Your task to perform on an android device: Open Wikipedia Image 0: 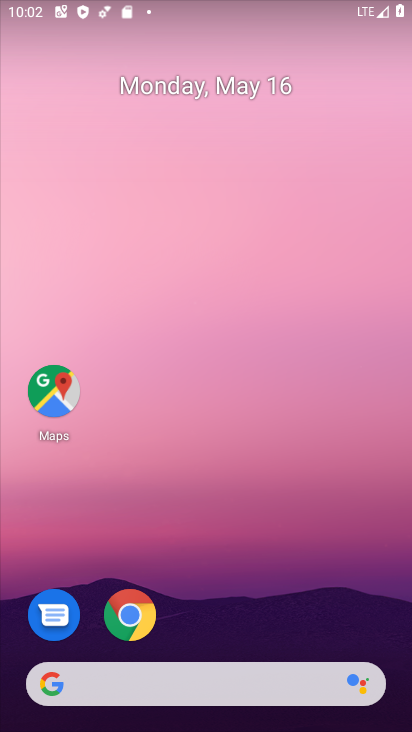
Step 0: drag from (166, 570) to (264, 5)
Your task to perform on an android device: Open Wikipedia Image 1: 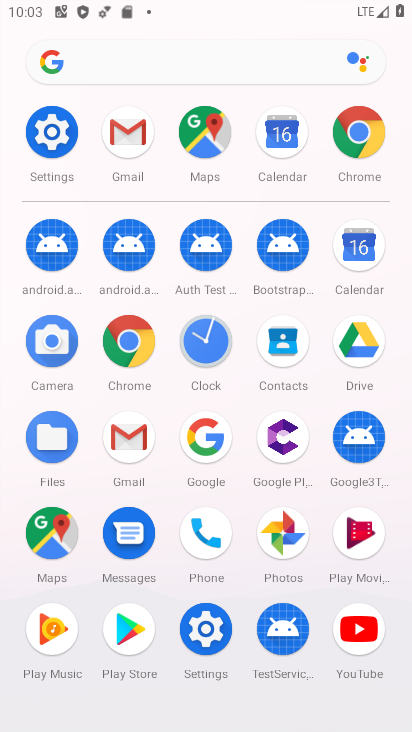
Step 1: click (356, 160)
Your task to perform on an android device: Open Wikipedia Image 2: 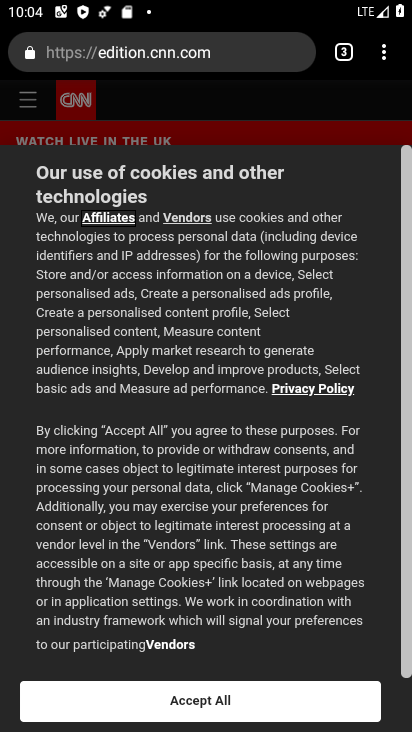
Step 2: click (219, 60)
Your task to perform on an android device: Open Wikipedia Image 3: 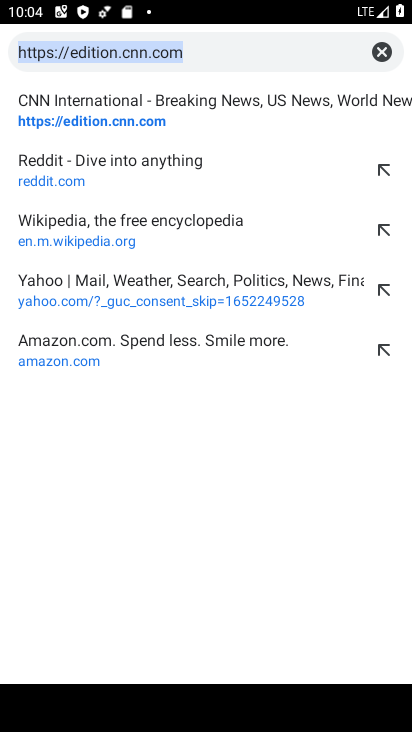
Step 3: click (192, 228)
Your task to perform on an android device: Open Wikipedia Image 4: 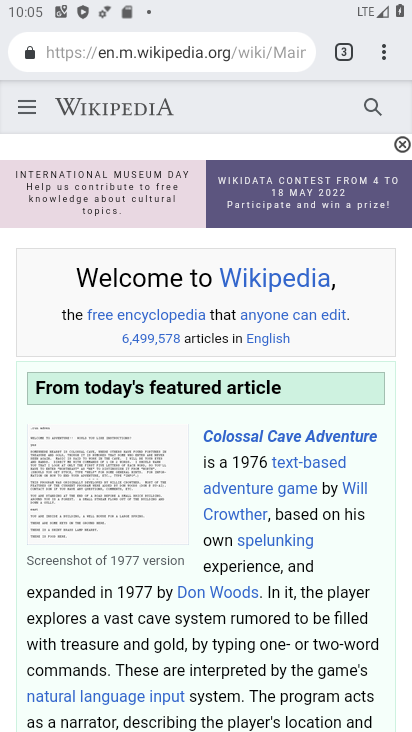
Step 4: task complete